Your task to perform on an android device: Open the map Image 0: 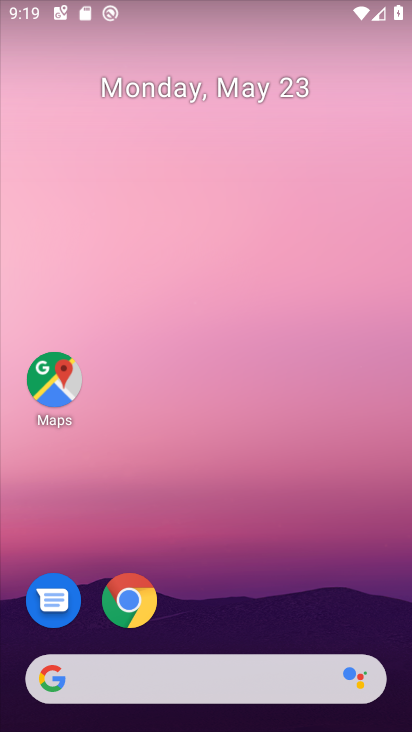
Step 0: drag from (194, 722) to (143, 57)
Your task to perform on an android device: Open the map Image 1: 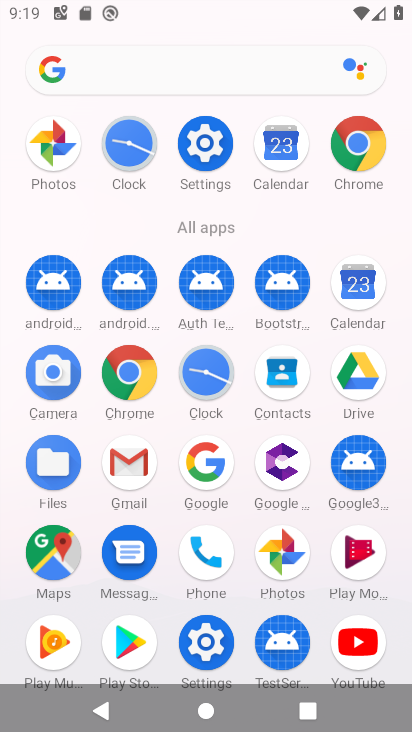
Step 1: click (49, 558)
Your task to perform on an android device: Open the map Image 2: 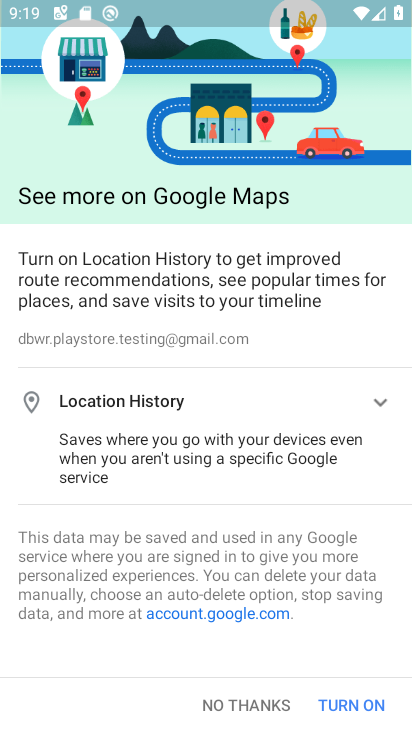
Step 2: click (256, 706)
Your task to perform on an android device: Open the map Image 3: 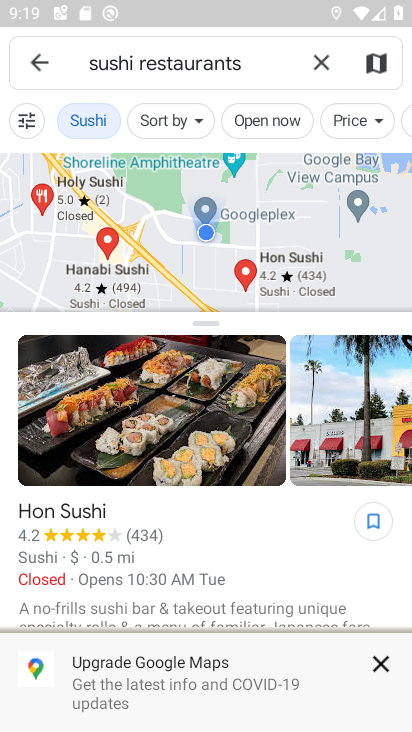
Step 3: task complete